Your task to perform on an android device: Open settings on Google Maps Image 0: 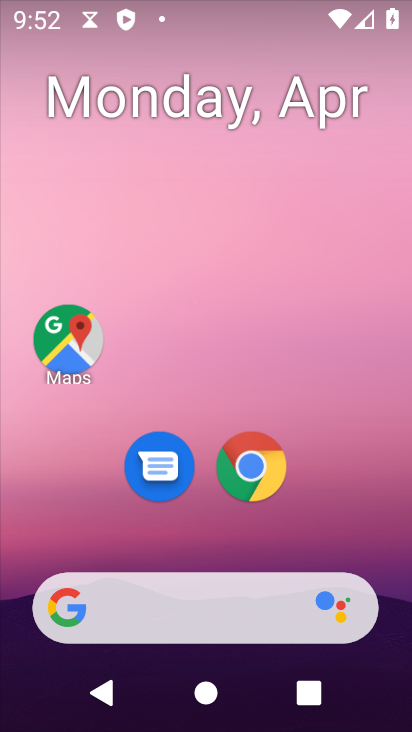
Step 0: click (70, 340)
Your task to perform on an android device: Open settings on Google Maps Image 1: 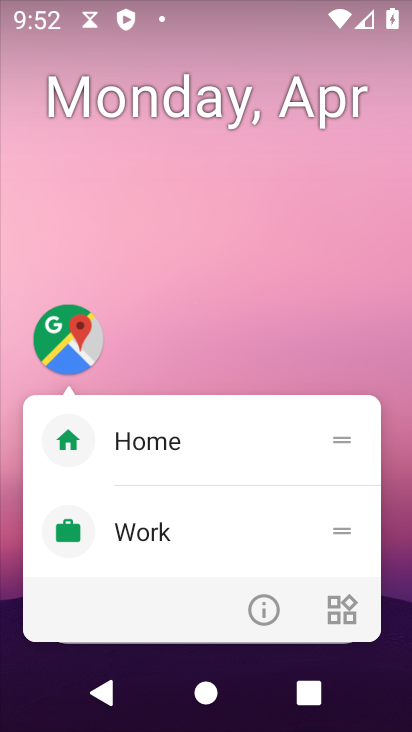
Step 1: click (67, 351)
Your task to perform on an android device: Open settings on Google Maps Image 2: 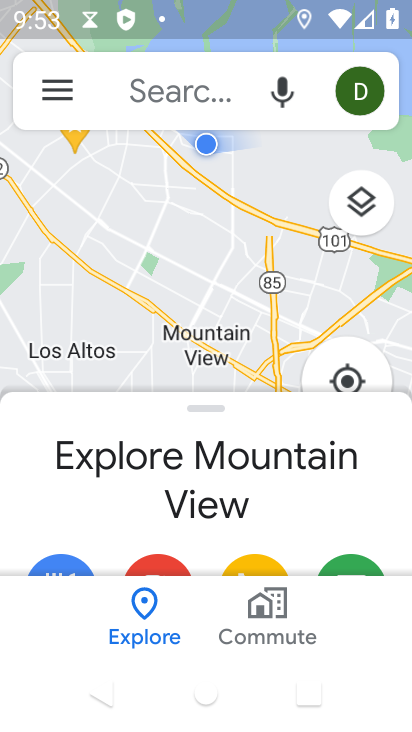
Step 2: click (52, 103)
Your task to perform on an android device: Open settings on Google Maps Image 3: 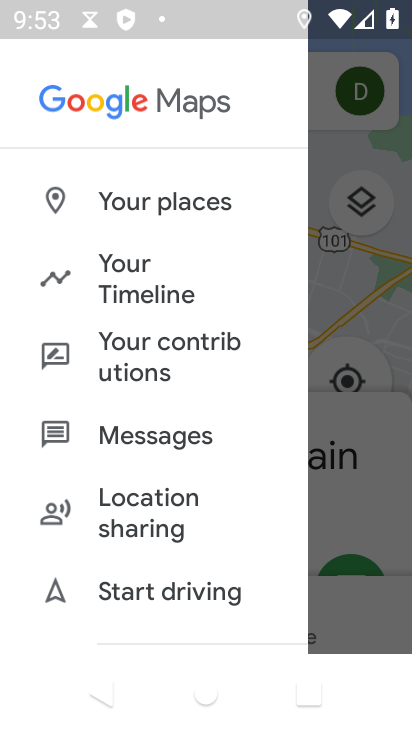
Step 3: drag from (145, 528) to (157, 415)
Your task to perform on an android device: Open settings on Google Maps Image 4: 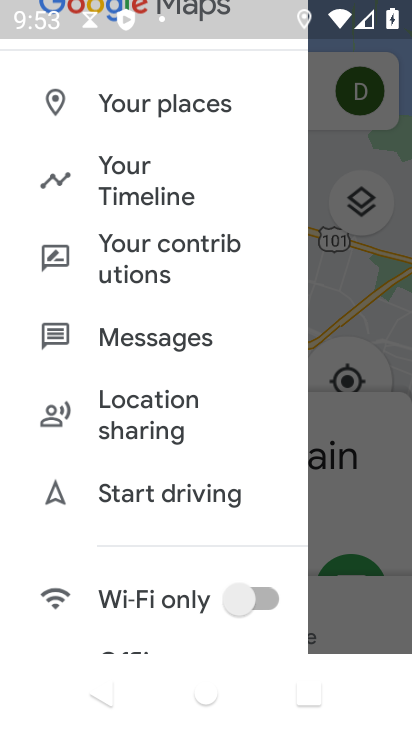
Step 4: drag from (127, 522) to (140, 402)
Your task to perform on an android device: Open settings on Google Maps Image 5: 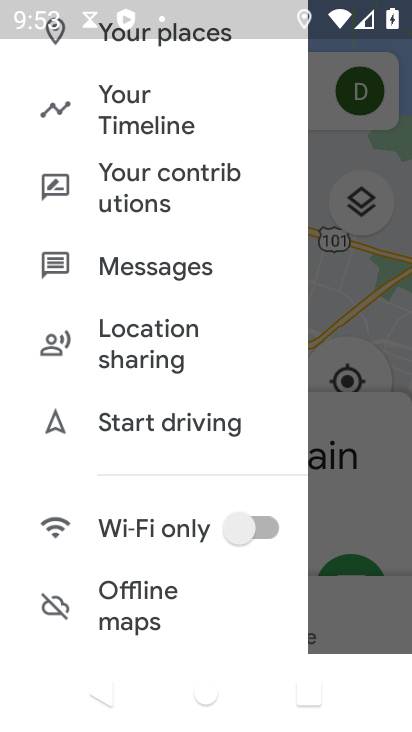
Step 5: drag from (128, 519) to (131, 401)
Your task to perform on an android device: Open settings on Google Maps Image 6: 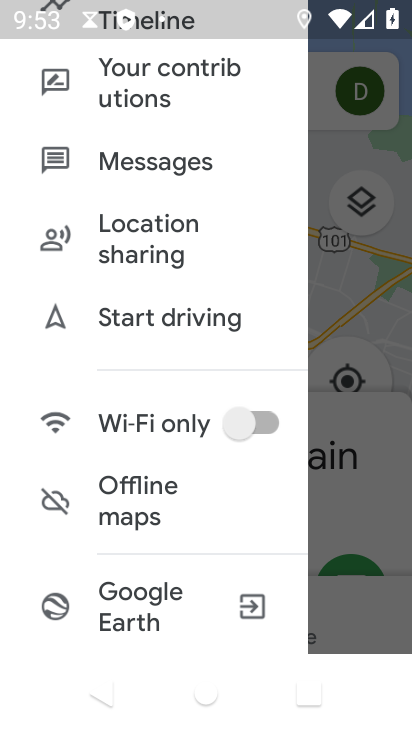
Step 6: drag from (116, 537) to (142, 356)
Your task to perform on an android device: Open settings on Google Maps Image 7: 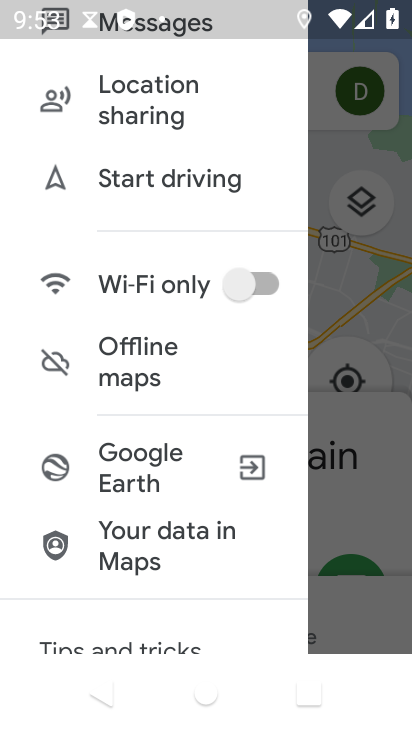
Step 7: drag from (141, 586) to (151, 415)
Your task to perform on an android device: Open settings on Google Maps Image 8: 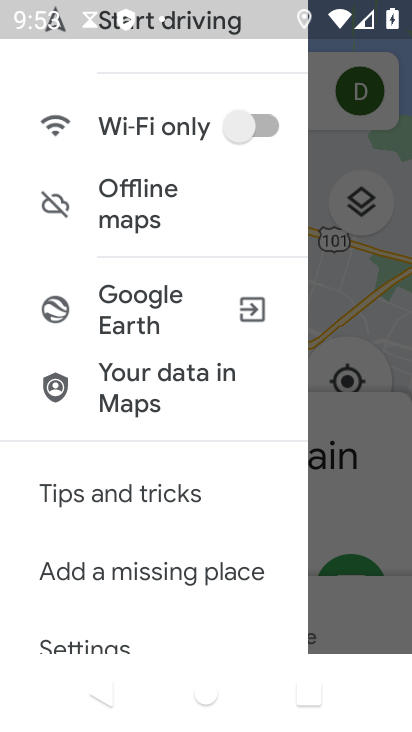
Step 8: drag from (128, 589) to (154, 470)
Your task to perform on an android device: Open settings on Google Maps Image 9: 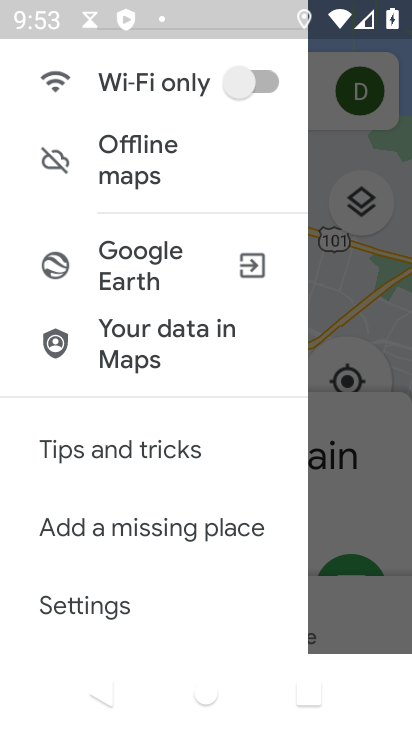
Step 9: click (83, 612)
Your task to perform on an android device: Open settings on Google Maps Image 10: 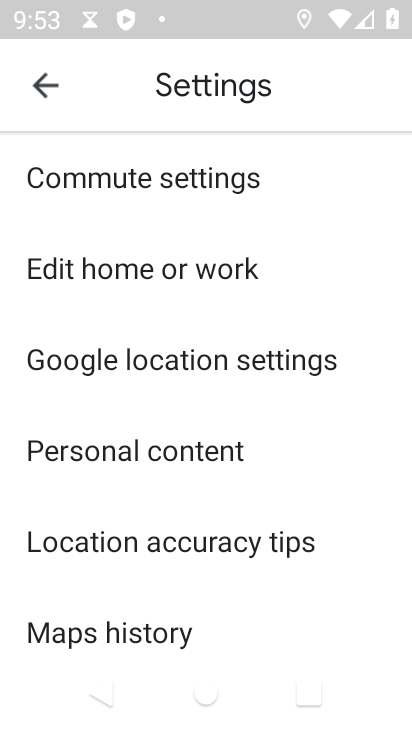
Step 10: task complete